Your task to perform on an android device: turn on bluetooth scan Image 0: 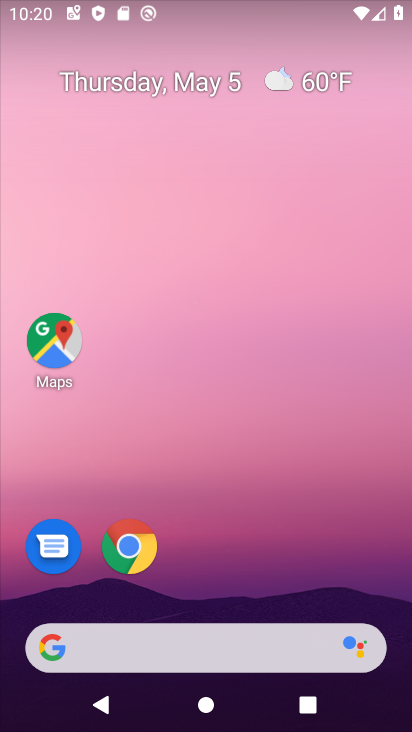
Step 0: drag from (252, 584) to (297, 26)
Your task to perform on an android device: turn on bluetooth scan Image 1: 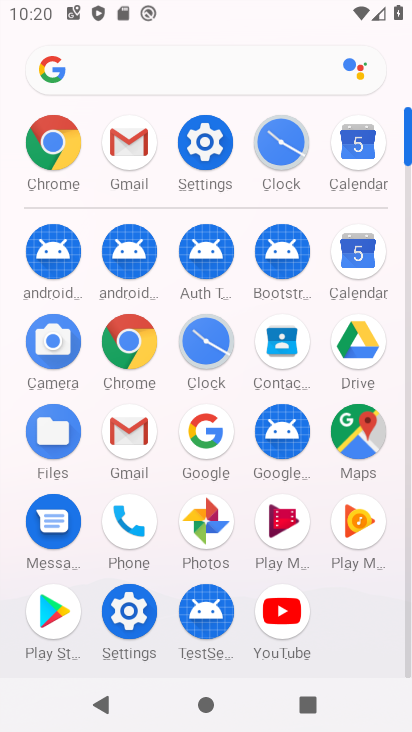
Step 1: click (207, 140)
Your task to perform on an android device: turn on bluetooth scan Image 2: 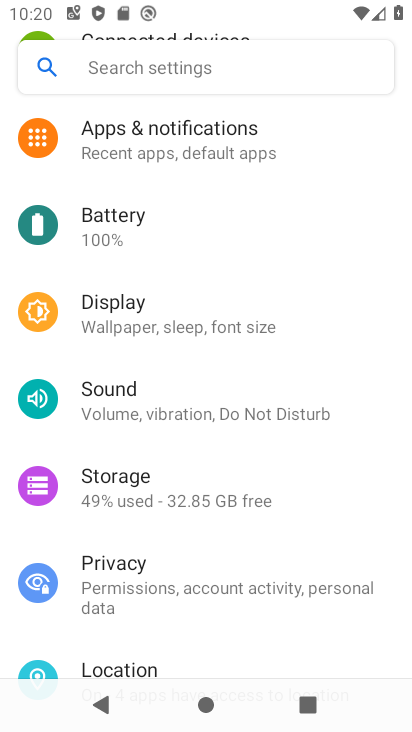
Step 2: drag from (178, 596) to (170, 450)
Your task to perform on an android device: turn on bluetooth scan Image 3: 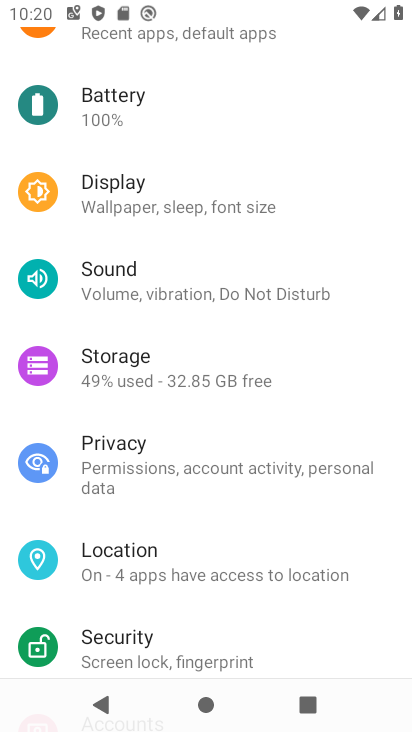
Step 3: click (169, 552)
Your task to perform on an android device: turn on bluetooth scan Image 4: 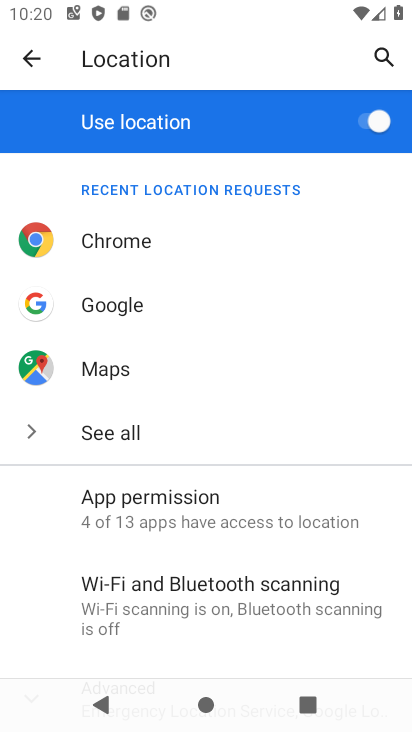
Step 4: click (169, 585)
Your task to perform on an android device: turn on bluetooth scan Image 5: 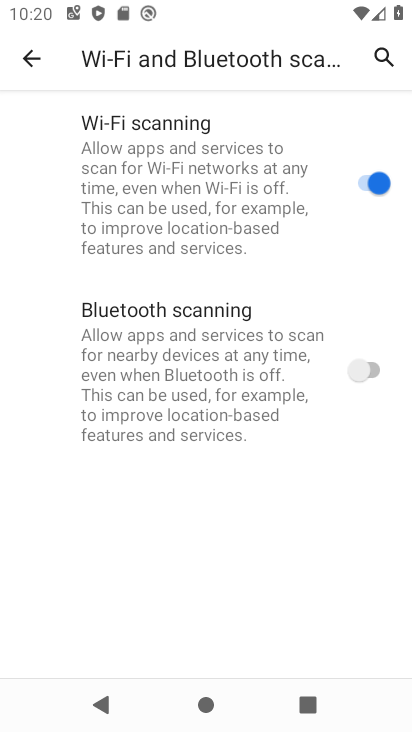
Step 5: click (363, 369)
Your task to perform on an android device: turn on bluetooth scan Image 6: 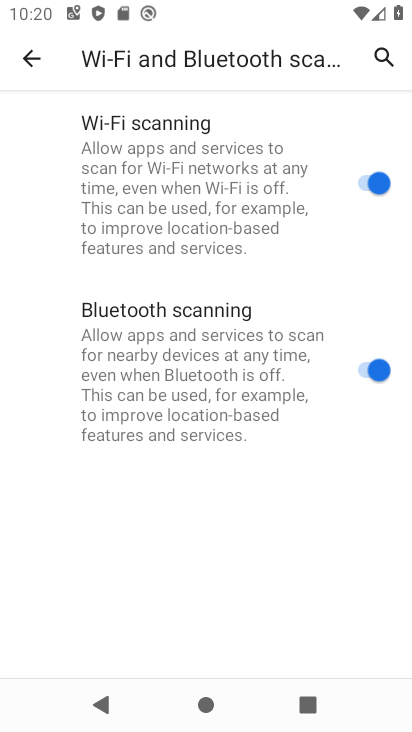
Step 6: task complete